Your task to perform on an android device: delete location history Image 0: 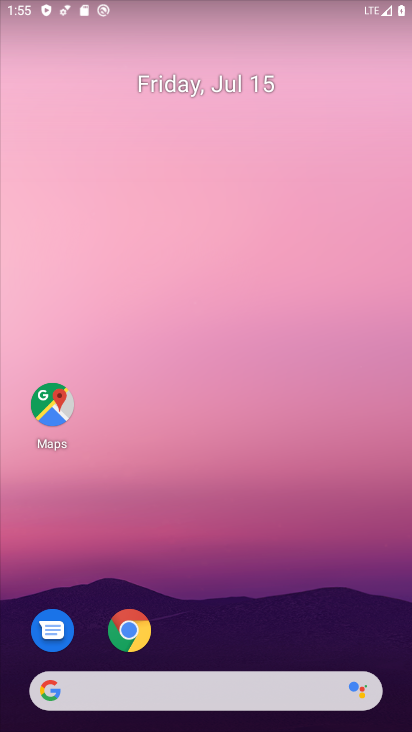
Step 0: press home button
Your task to perform on an android device: delete location history Image 1: 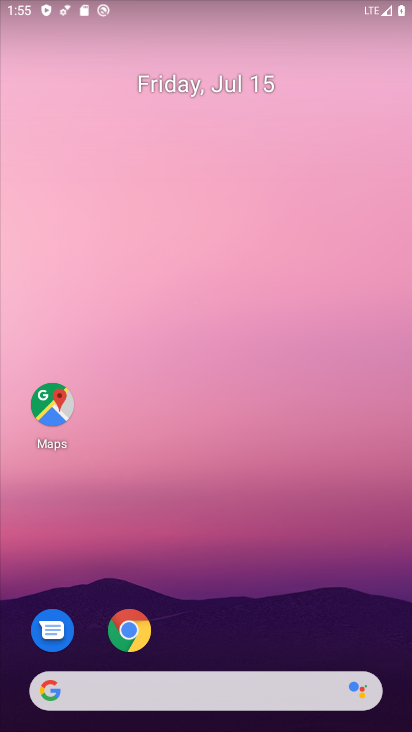
Step 1: drag from (239, 605) to (340, 0)
Your task to perform on an android device: delete location history Image 2: 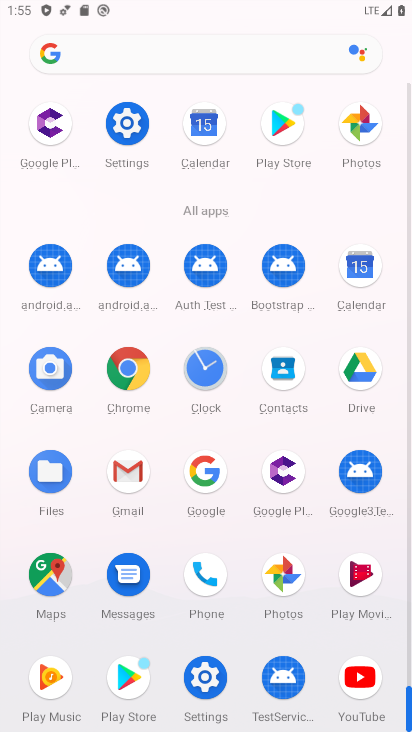
Step 2: click (121, 115)
Your task to perform on an android device: delete location history Image 3: 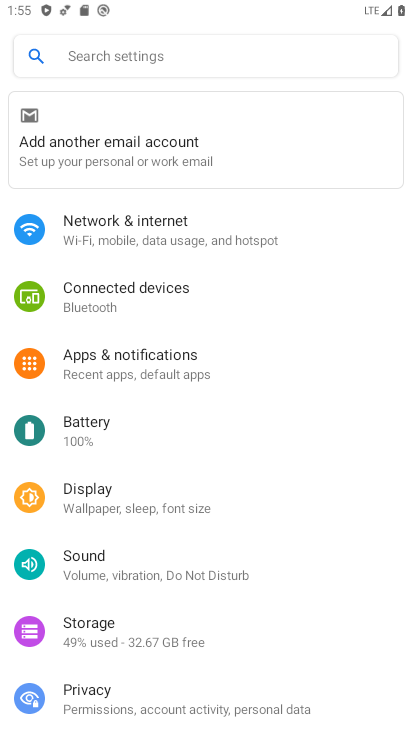
Step 3: drag from (201, 676) to (218, 277)
Your task to perform on an android device: delete location history Image 4: 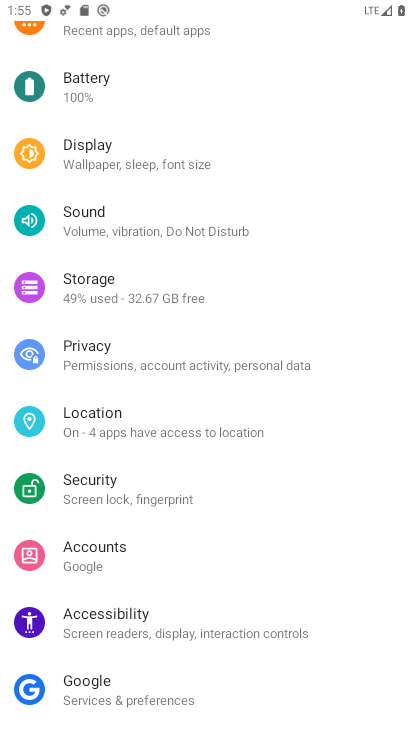
Step 4: click (124, 413)
Your task to perform on an android device: delete location history Image 5: 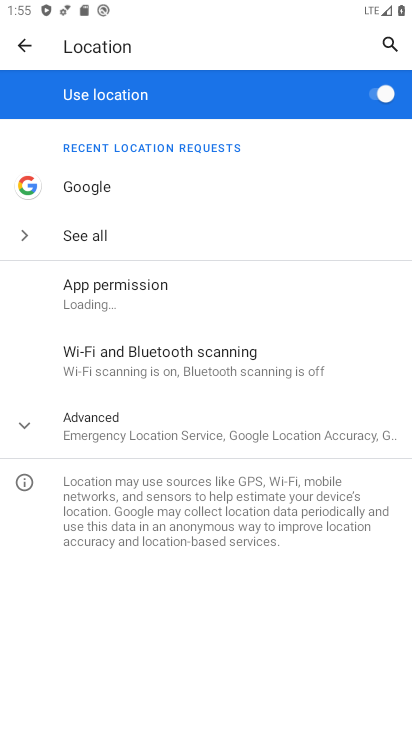
Step 5: click (37, 428)
Your task to perform on an android device: delete location history Image 6: 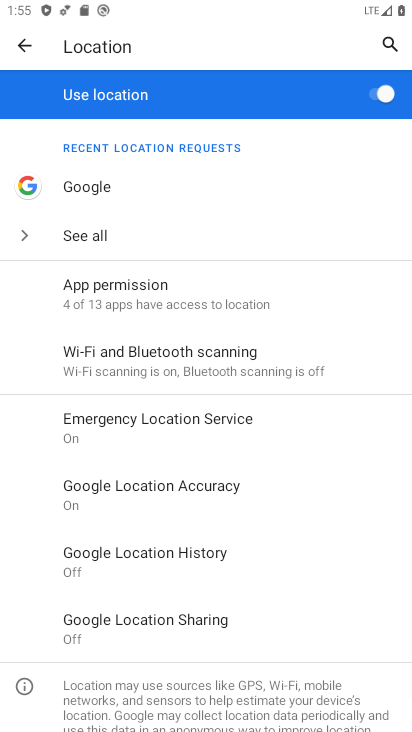
Step 6: click (105, 546)
Your task to perform on an android device: delete location history Image 7: 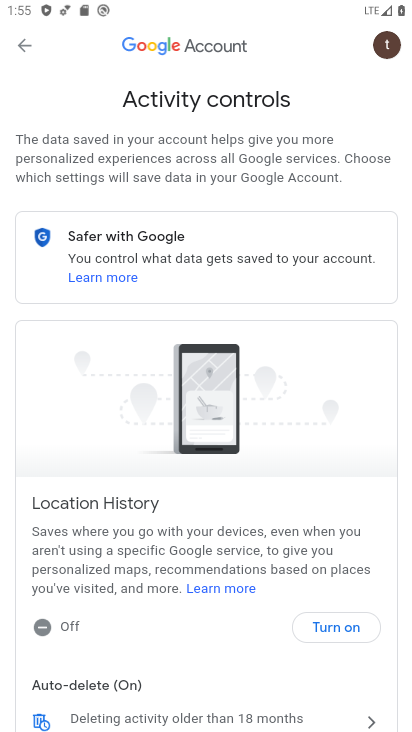
Step 7: drag from (202, 670) to (164, 280)
Your task to perform on an android device: delete location history Image 8: 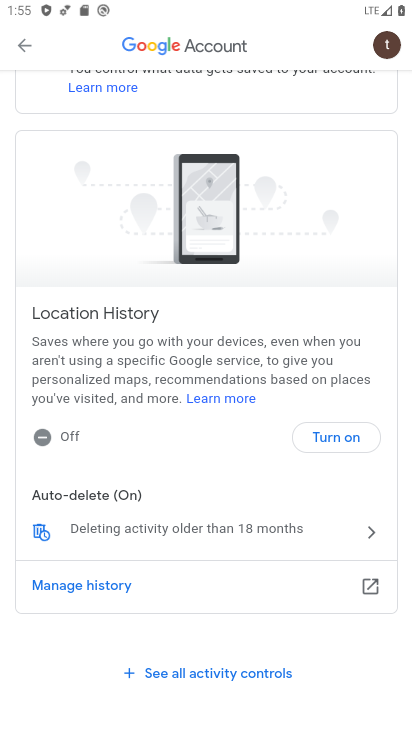
Step 8: click (40, 535)
Your task to perform on an android device: delete location history Image 9: 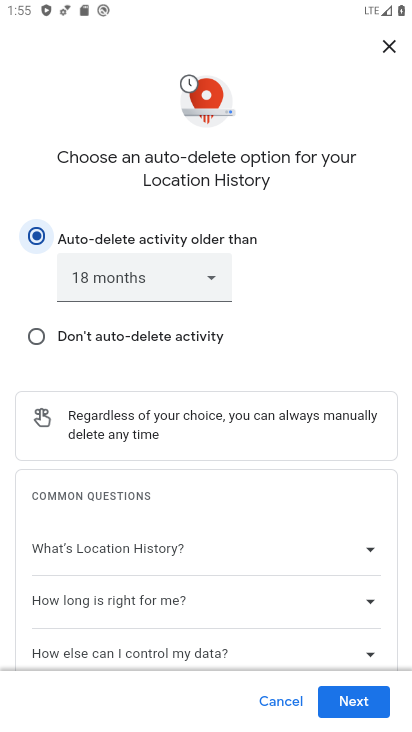
Step 9: click (351, 706)
Your task to perform on an android device: delete location history Image 10: 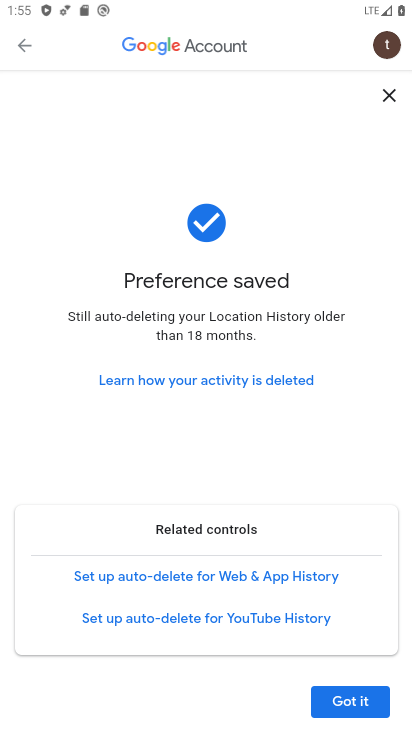
Step 10: click (346, 702)
Your task to perform on an android device: delete location history Image 11: 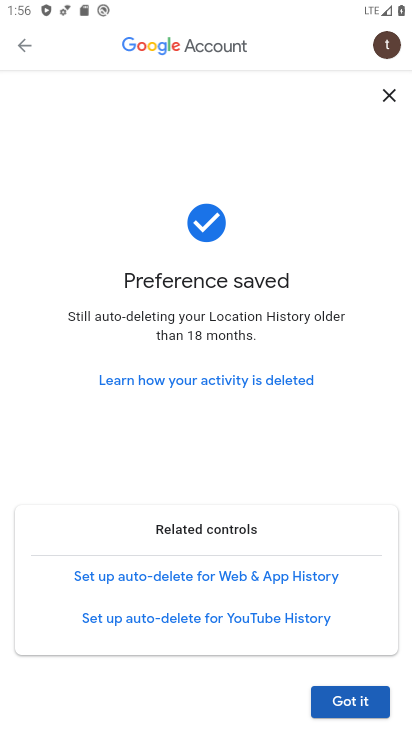
Step 11: click (352, 707)
Your task to perform on an android device: delete location history Image 12: 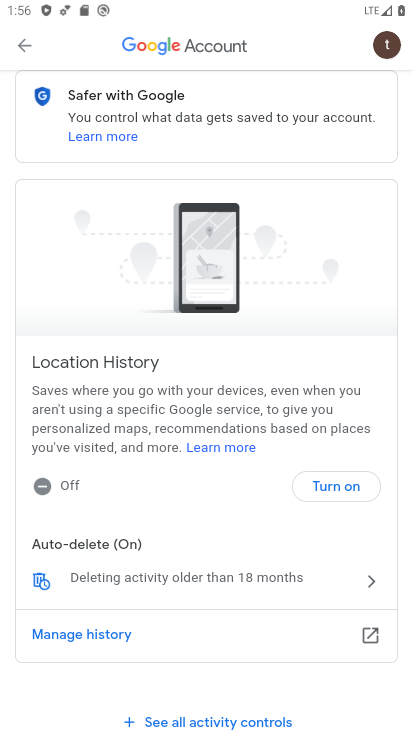
Step 12: task complete